Your task to perform on an android device: find which apps use the phone's location Image 0: 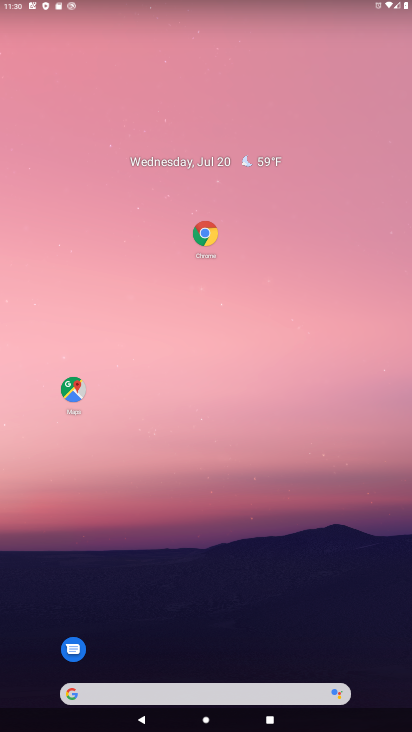
Step 0: drag from (211, 654) to (199, 84)
Your task to perform on an android device: find which apps use the phone's location Image 1: 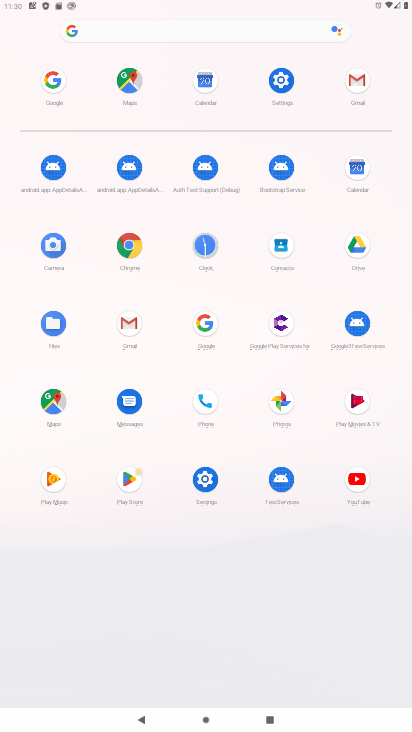
Step 1: click (277, 81)
Your task to perform on an android device: find which apps use the phone's location Image 2: 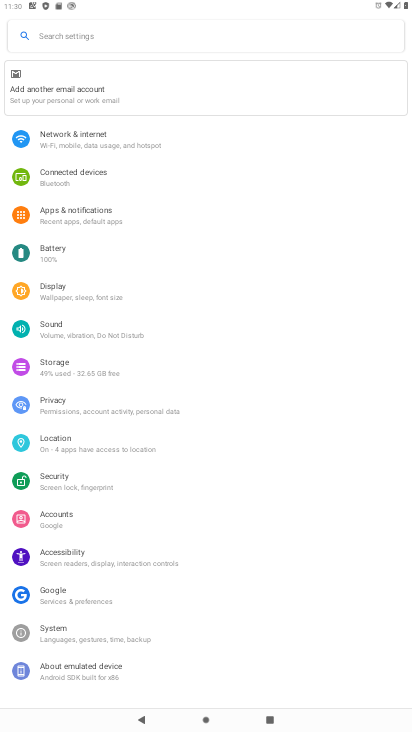
Step 2: click (81, 439)
Your task to perform on an android device: find which apps use the phone's location Image 3: 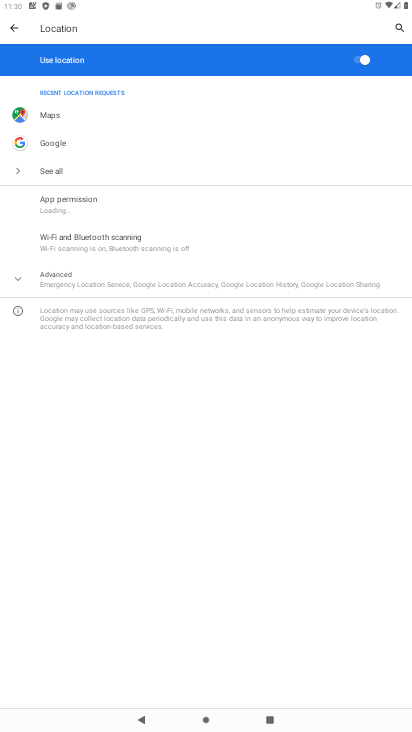
Step 3: click (68, 205)
Your task to perform on an android device: find which apps use the phone's location Image 4: 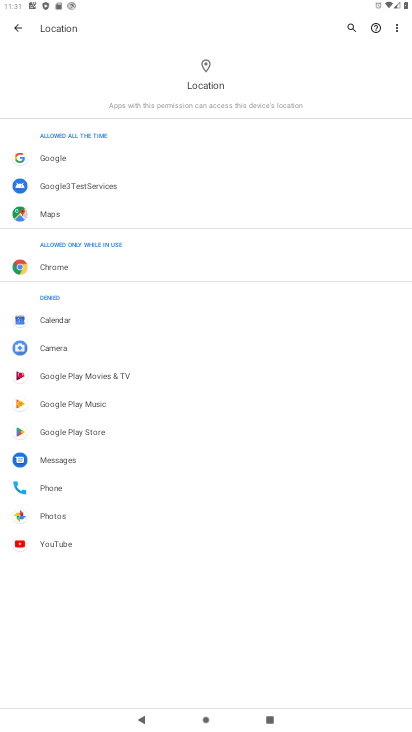
Step 4: task complete